Your task to perform on an android device: Search for pizza restaurants on Maps Image 0: 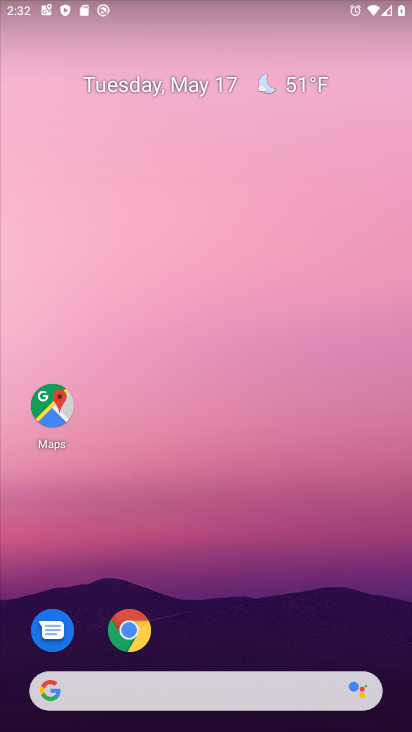
Step 0: click (40, 408)
Your task to perform on an android device: Search for pizza restaurants on Maps Image 1: 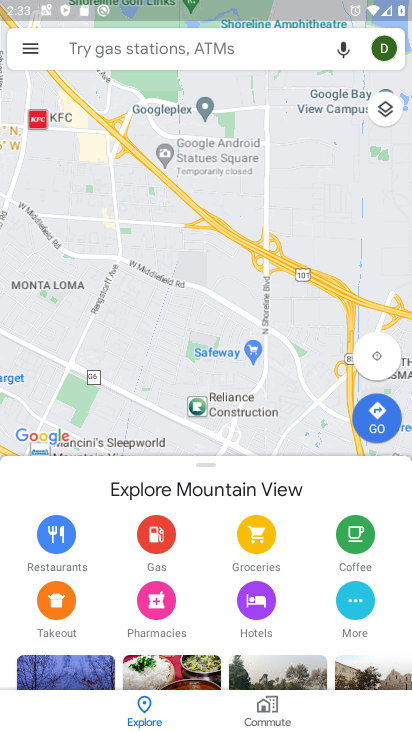
Step 1: click (197, 53)
Your task to perform on an android device: Search for pizza restaurants on Maps Image 2: 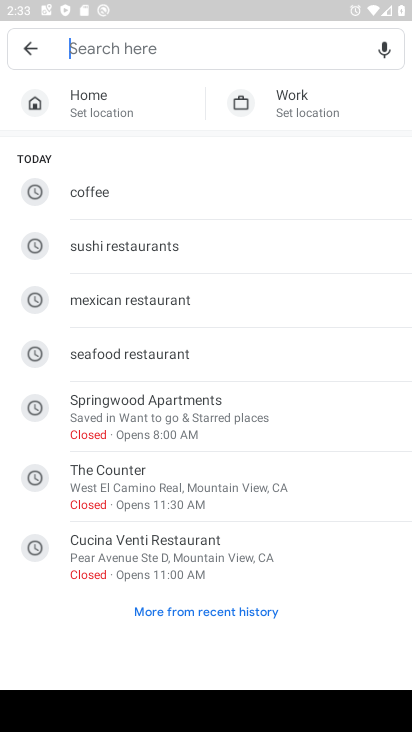
Step 2: type "pizza restaurants"
Your task to perform on an android device: Search for pizza restaurants on Maps Image 3: 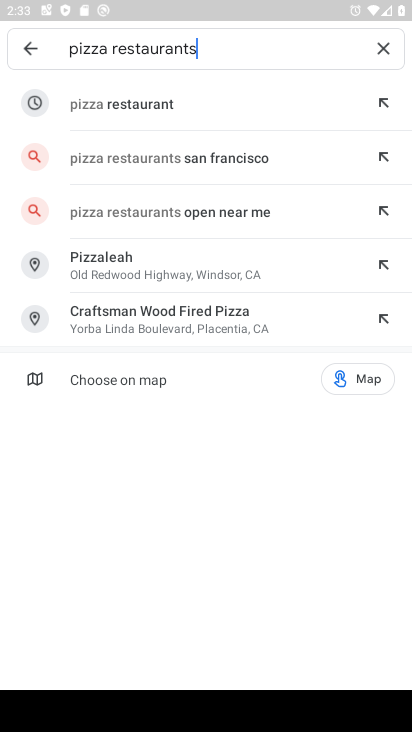
Step 3: click (101, 105)
Your task to perform on an android device: Search for pizza restaurants on Maps Image 4: 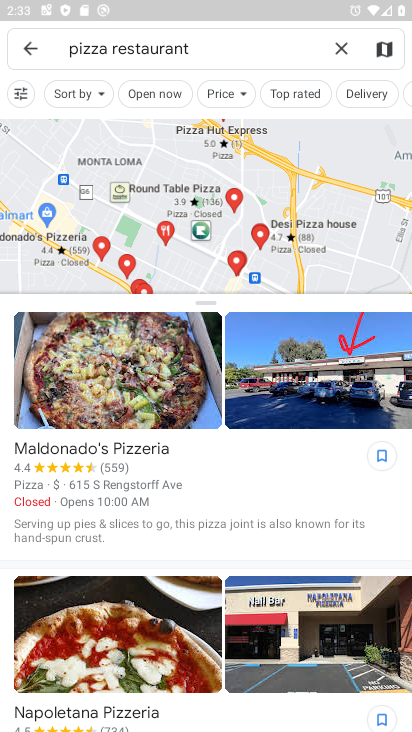
Step 4: task complete